Your task to perform on an android device: see tabs open on other devices in the chrome app Image 0: 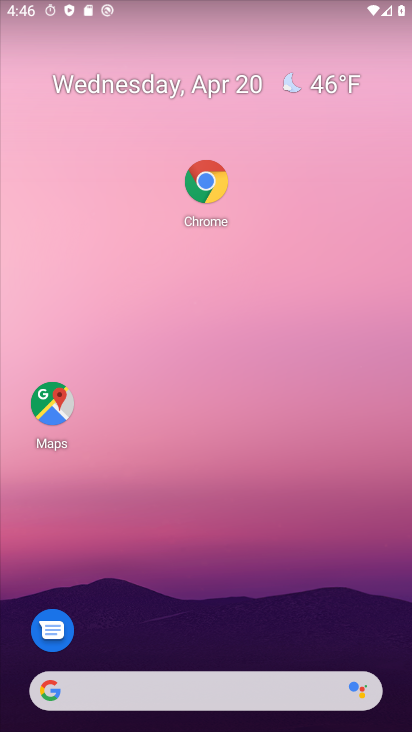
Step 0: click (206, 177)
Your task to perform on an android device: see tabs open on other devices in the chrome app Image 1: 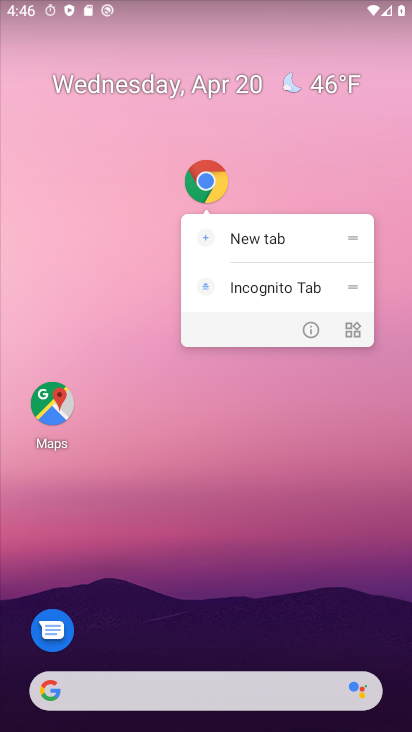
Step 1: click (206, 177)
Your task to perform on an android device: see tabs open on other devices in the chrome app Image 2: 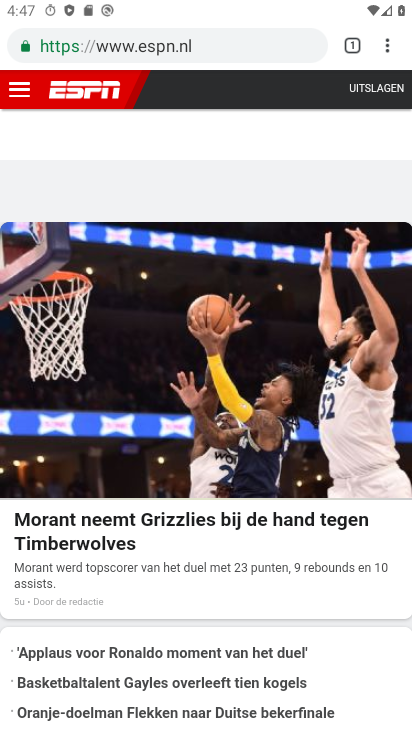
Step 2: click (361, 49)
Your task to perform on an android device: see tabs open on other devices in the chrome app Image 3: 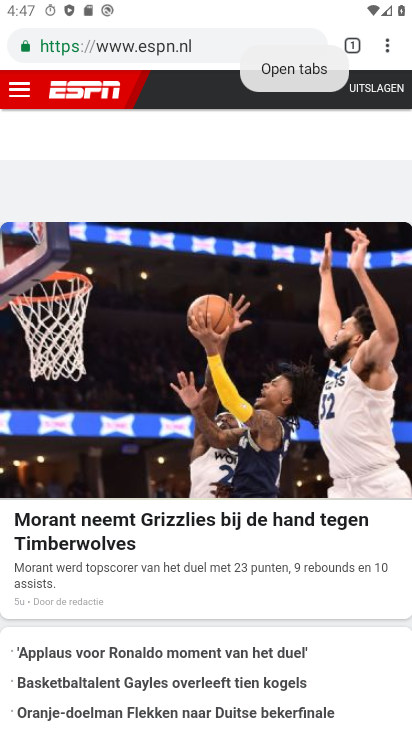
Step 3: click (348, 46)
Your task to perform on an android device: see tabs open on other devices in the chrome app Image 4: 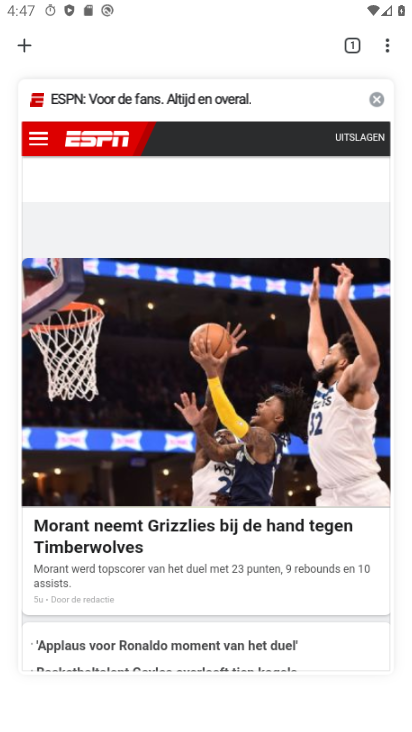
Step 4: task complete